Your task to perform on an android device: turn off sleep mode Image 0: 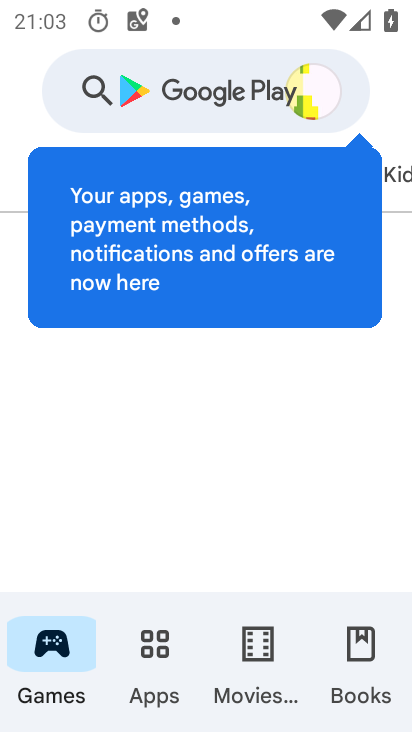
Step 0: press home button
Your task to perform on an android device: turn off sleep mode Image 1: 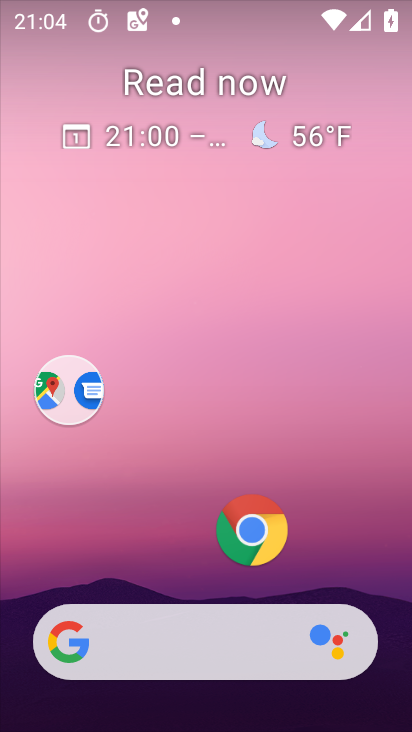
Step 1: drag from (180, 559) to (215, 79)
Your task to perform on an android device: turn off sleep mode Image 2: 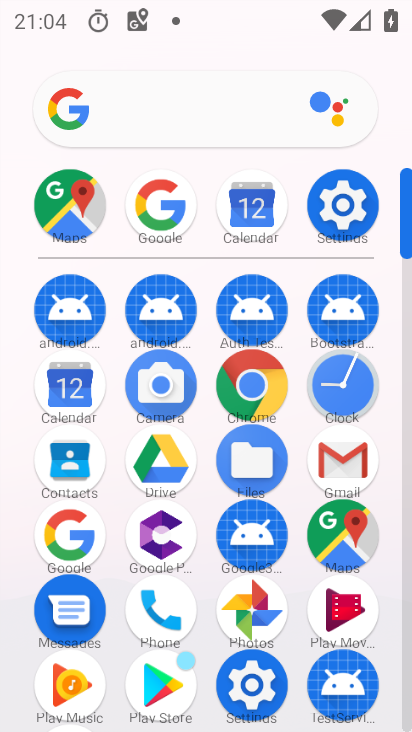
Step 2: click (342, 212)
Your task to perform on an android device: turn off sleep mode Image 3: 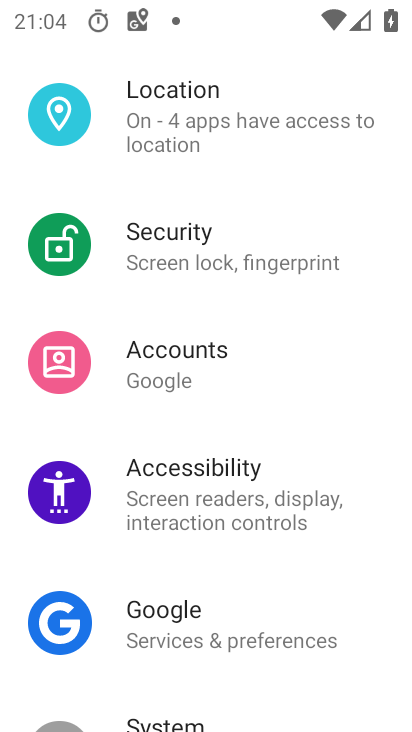
Step 3: drag from (197, 213) to (195, 599)
Your task to perform on an android device: turn off sleep mode Image 4: 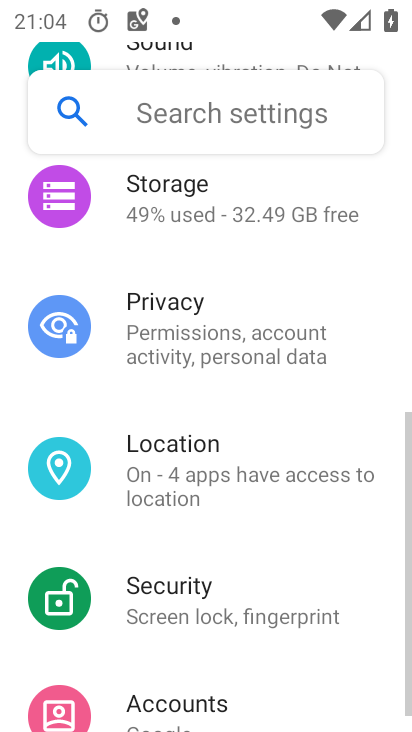
Step 4: drag from (155, 284) to (222, 613)
Your task to perform on an android device: turn off sleep mode Image 5: 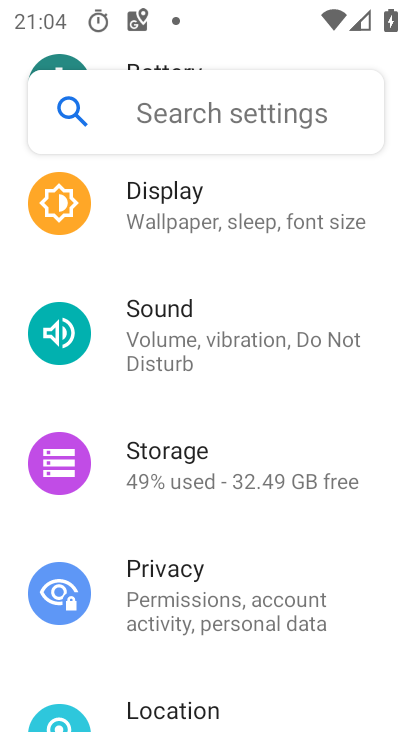
Step 5: click (171, 215)
Your task to perform on an android device: turn off sleep mode Image 6: 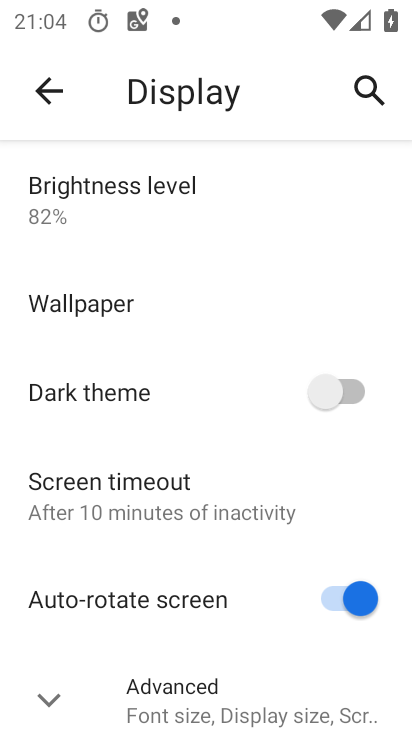
Step 6: click (153, 489)
Your task to perform on an android device: turn off sleep mode Image 7: 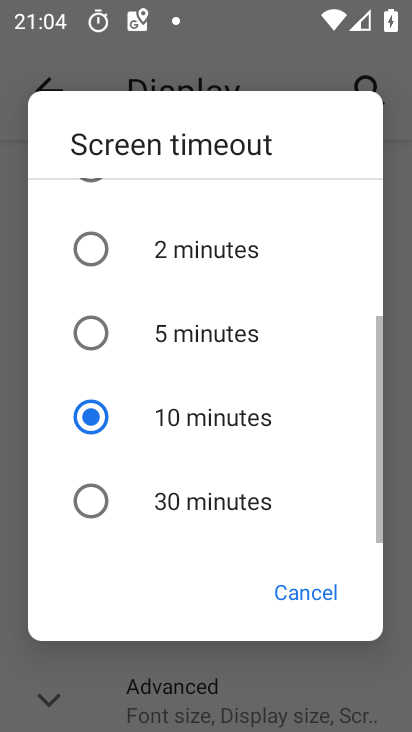
Step 7: task complete